Your task to perform on an android device: manage bookmarks in the chrome app Image 0: 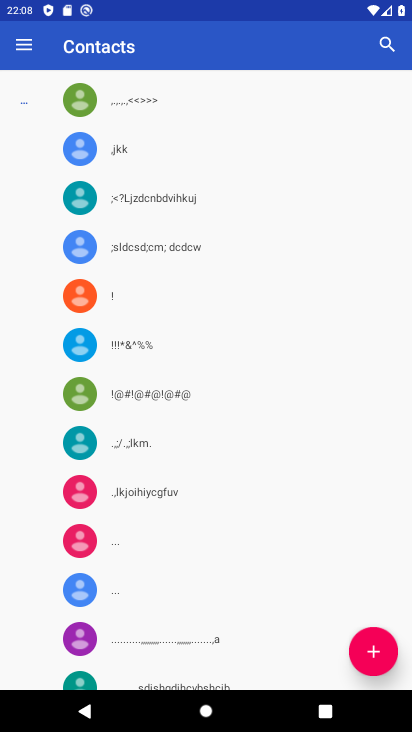
Step 0: press home button
Your task to perform on an android device: manage bookmarks in the chrome app Image 1: 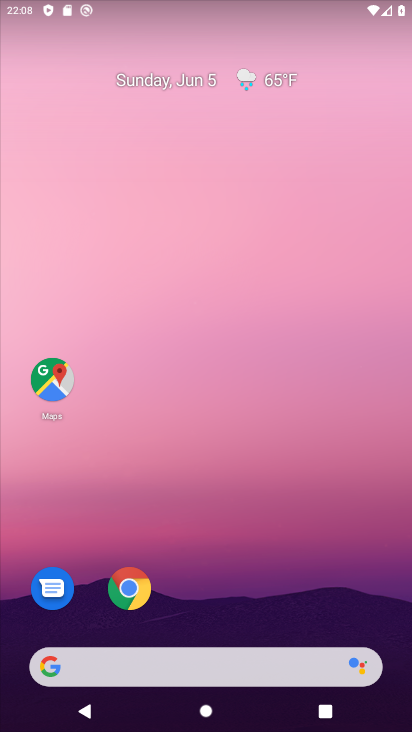
Step 1: click (131, 584)
Your task to perform on an android device: manage bookmarks in the chrome app Image 2: 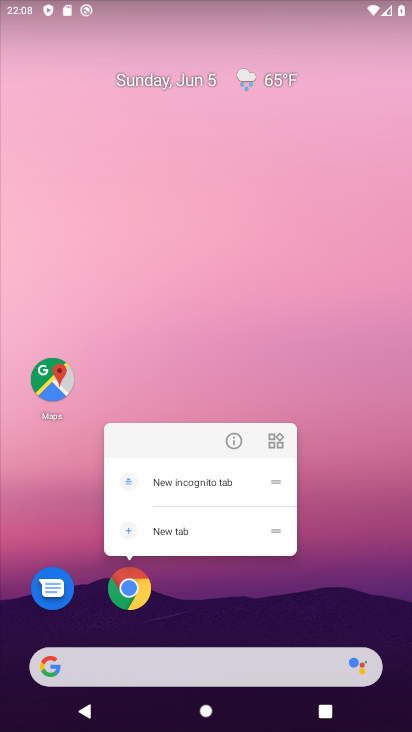
Step 2: click (131, 583)
Your task to perform on an android device: manage bookmarks in the chrome app Image 3: 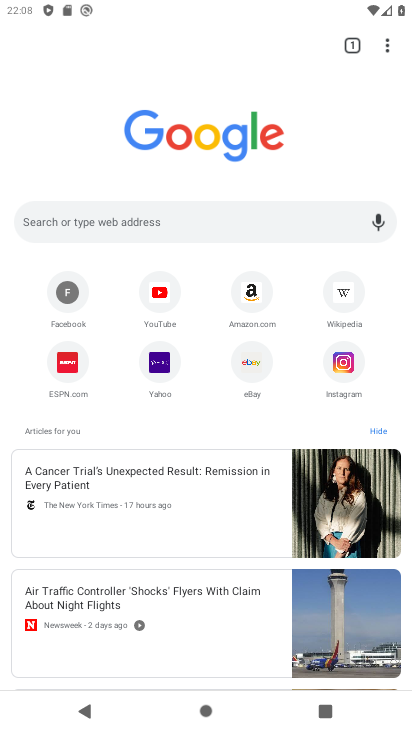
Step 3: drag from (398, 37) to (329, 180)
Your task to perform on an android device: manage bookmarks in the chrome app Image 4: 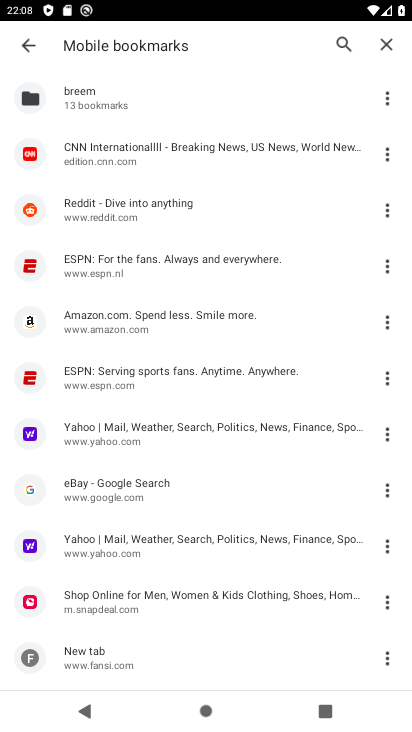
Step 4: click (198, 146)
Your task to perform on an android device: manage bookmarks in the chrome app Image 5: 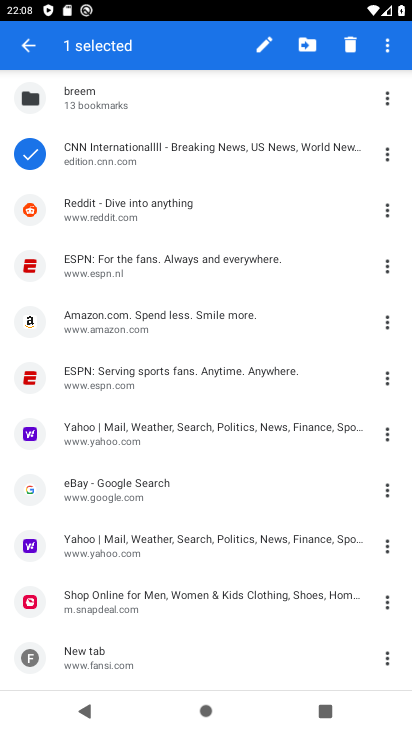
Step 5: click (184, 240)
Your task to perform on an android device: manage bookmarks in the chrome app Image 6: 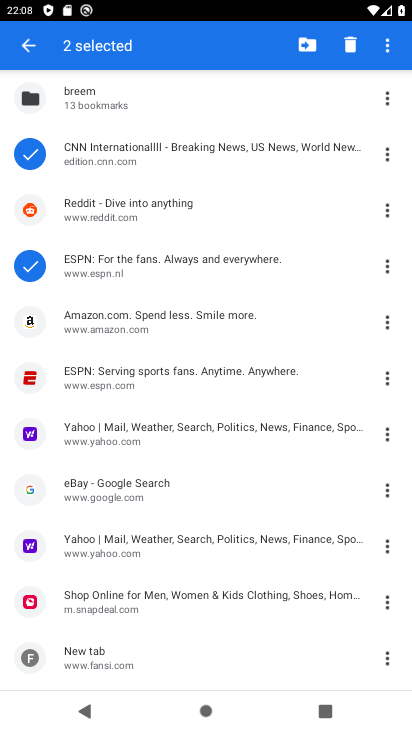
Step 6: click (184, 202)
Your task to perform on an android device: manage bookmarks in the chrome app Image 7: 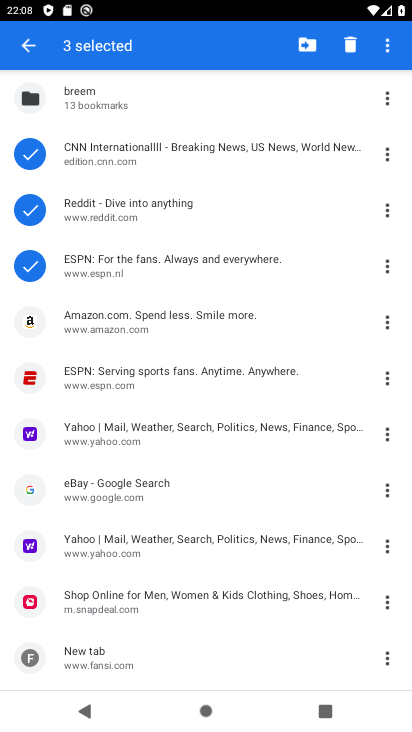
Step 7: click (193, 326)
Your task to perform on an android device: manage bookmarks in the chrome app Image 8: 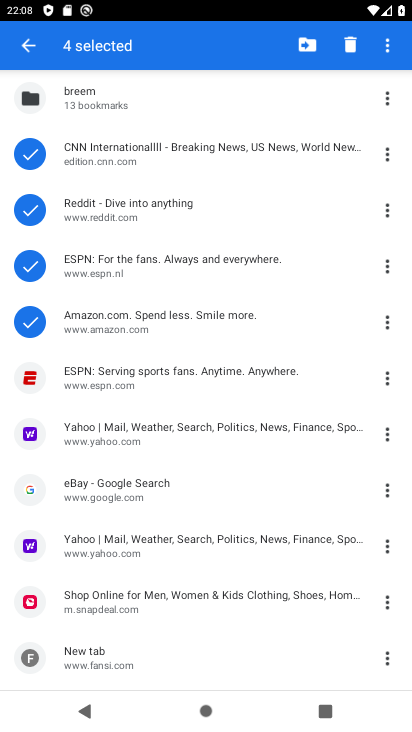
Step 8: click (192, 403)
Your task to perform on an android device: manage bookmarks in the chrome app Image 9: 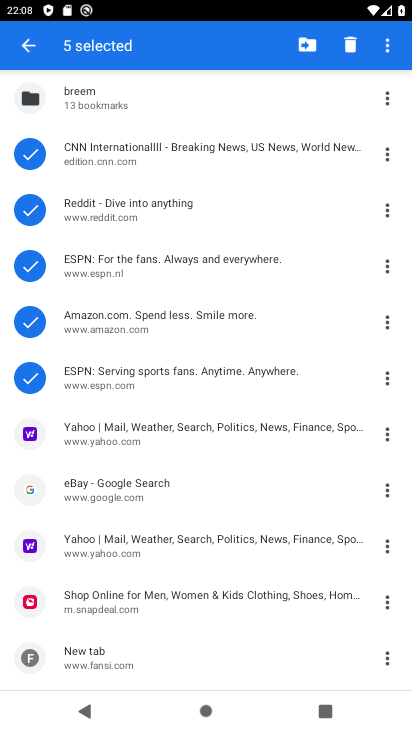
Step 9: click (182, 437)
Your task to perform on an android device: manage bookmarks in the chrome app Image 10: 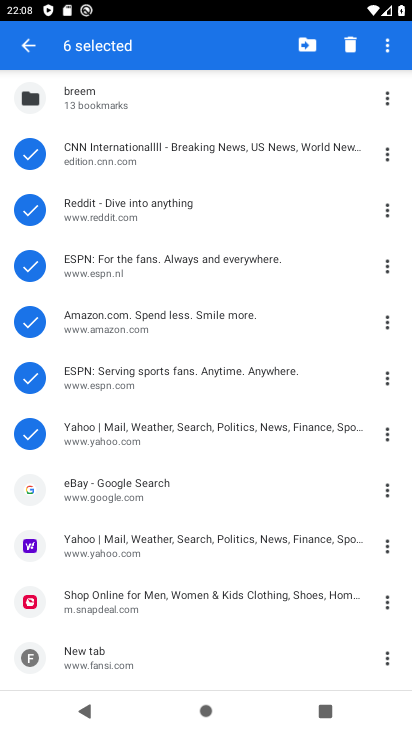
Step 10: click (154, 496)
Your task to perform on an android device: manage bookmarks in the chrome app Image 11: 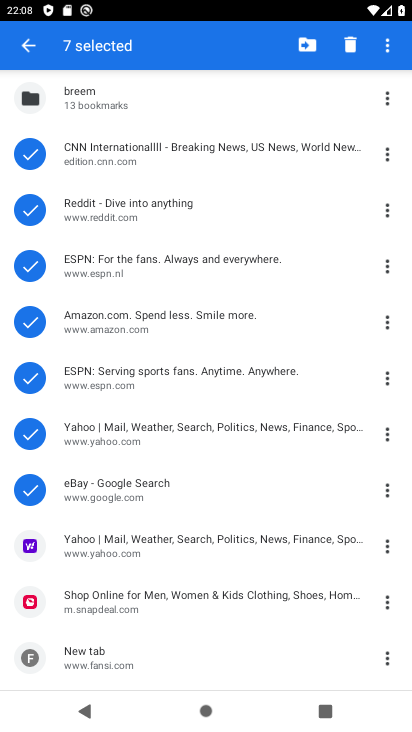
Step 11: click (146, 553)
Your task to perform on an android device: manage bookmarks in the chrome app Image 12: 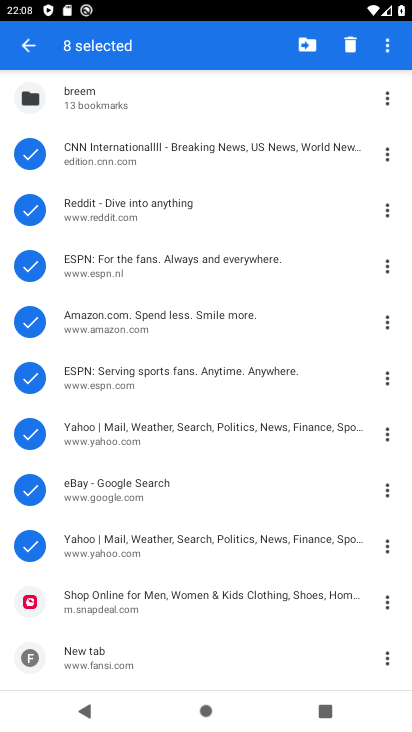
Step 12: click (145, 656)
Your task to perform on an android device: manage bookmarks in the chrome app Image 13: 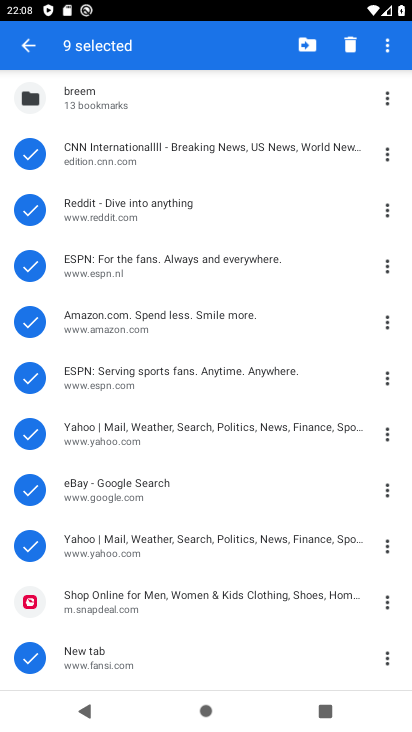
Step 13: click (159, 607)
Your task to perform on an android device: manage bookmarks in the chrome app Image 14: 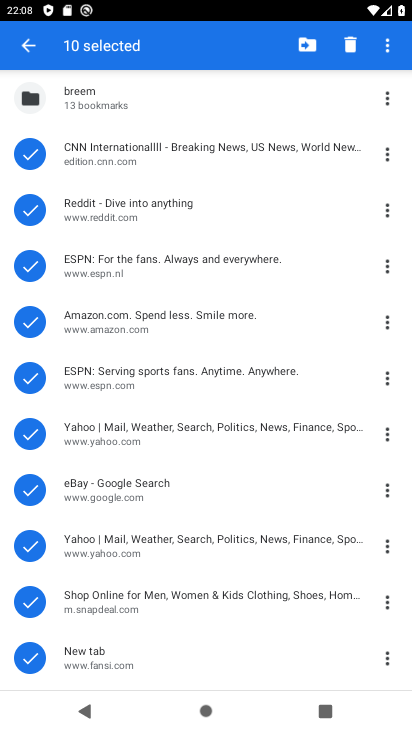
Step 14: drag from (153, 642) to (293, 23)
Your task to perform on an android device: manage bookmarks in the chrome app Image 15: 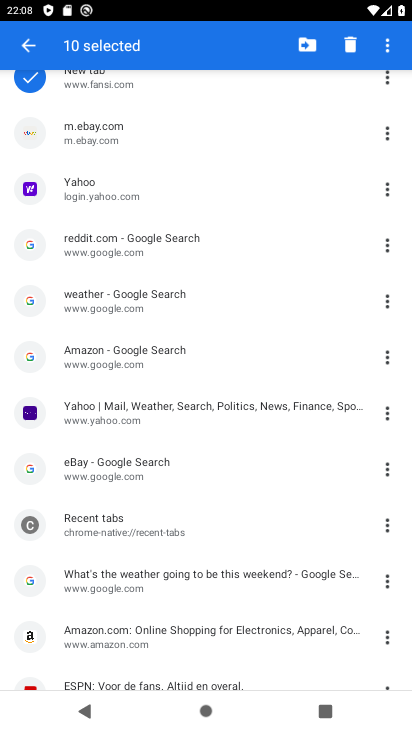
Step 15: click (200, 124)
Your task to perform on an android device: manage bookmarks in the chrome app Image 16: 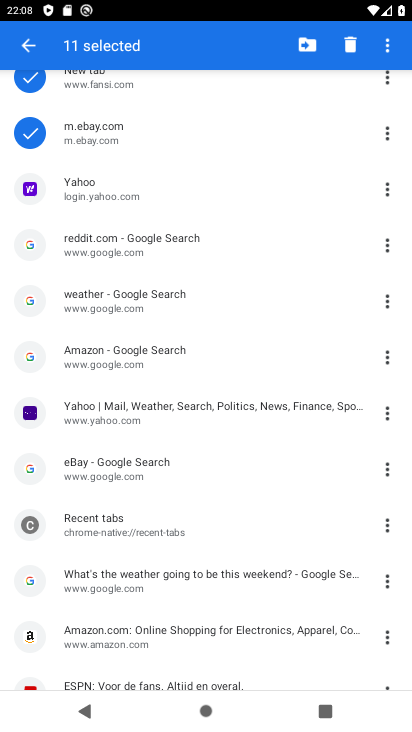
Step 16: click (155, 202)
Your task to perform on an android device: manage bookmarks in the chrome app Image 17: 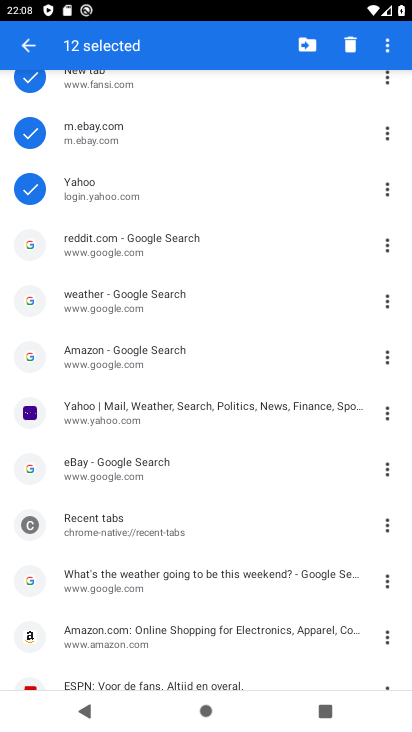
Step 17: click (149, 230)
Your task to perform on an android device: manage bookmarks in the chrome app Image 18: 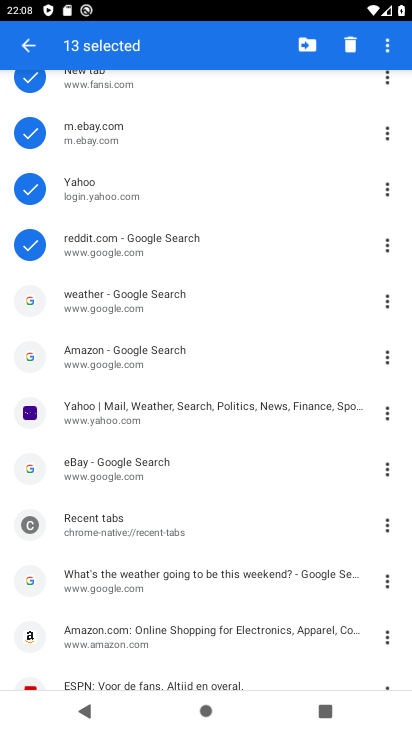
Step 18: click (142, 289)
Your task to perform on an android device: manage bookmarks in the chrome app Image 19: 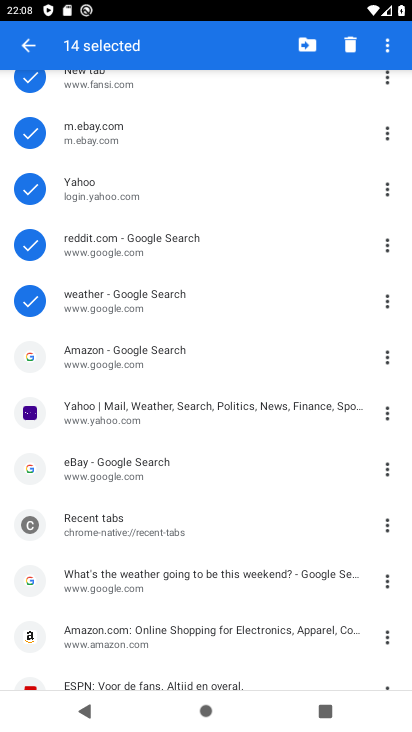
Step 19: drag from (131, 356) to (131, 410)
Your task to perform on an android device: manage bookmarks in the chrome app Image 20: 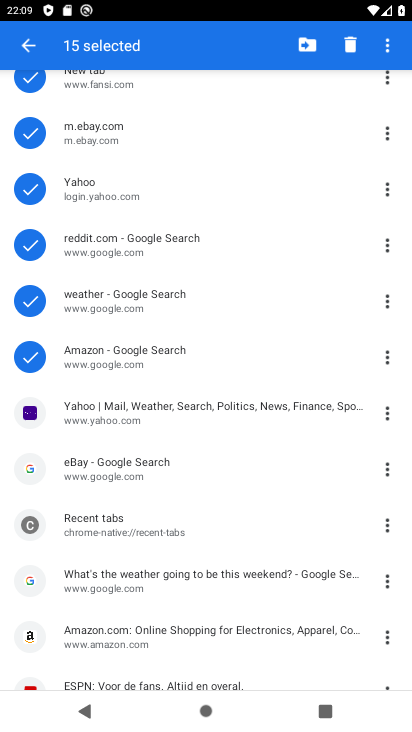
Step 20: click (134, 417)
Your task to perform on an android device: manage bookmarks in the chrome app Image 21: 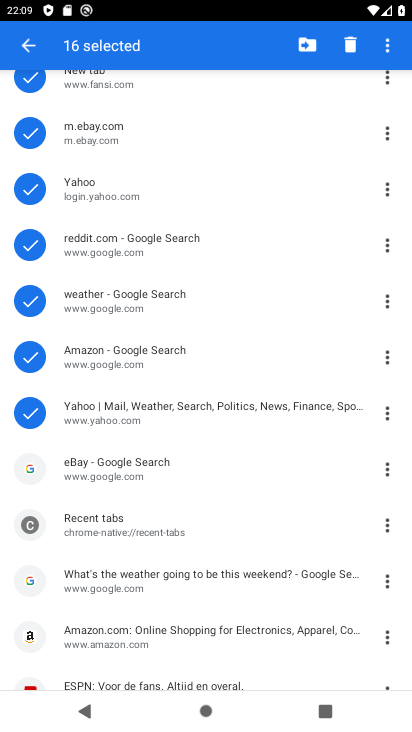
Step 21: click (111, 463)
Your task to perform on an android device: manage bookmarks in the chrome app Image 22: 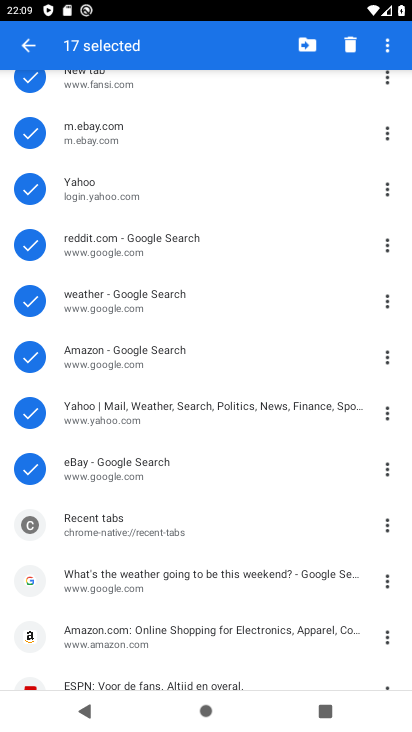
Step 22: click (113, 520)
Your task to perform on an android device: manage bookmarks in the chrome app Image 23: 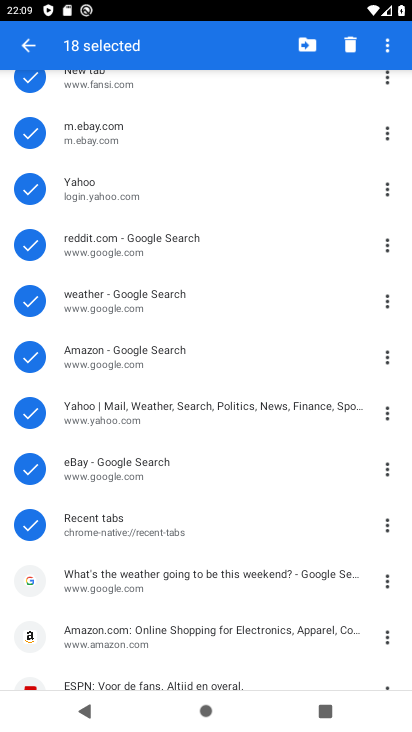
Step 23: click (111, 598)
Your task to perform on an android device: manage bookmarks in the chrome app Image 24: 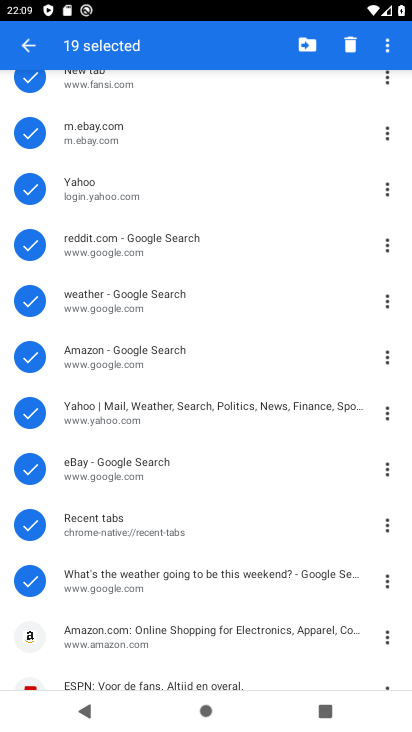
Step 24: click (127, 641)
Your task to perform on an android device: manage bookmarks in the chrome app Image 25: 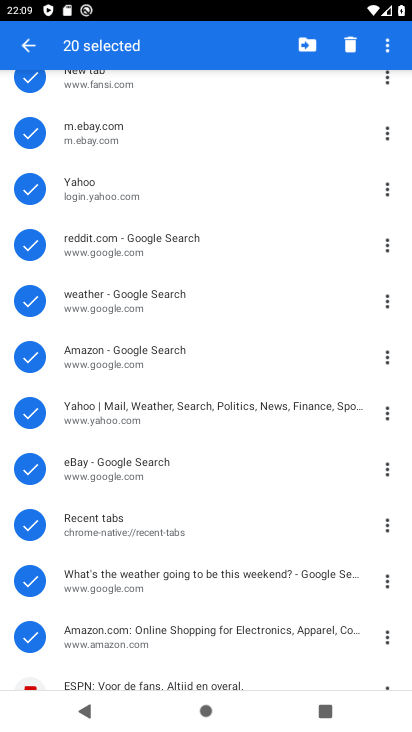
Step 25: drag from (134, 655) to (235, 272)
Your task to perform on an android device: manage bookmarks in the chrome app Image 26: 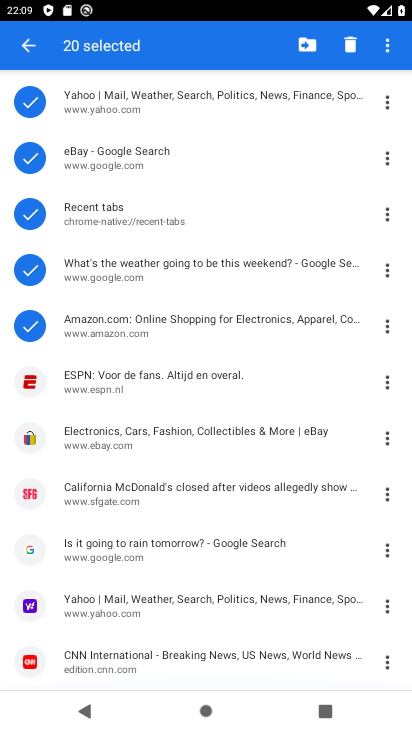
Step 26: click (212, 381)
Your task to perform on an android device: manage bookmarks in the chrome app Image 27: 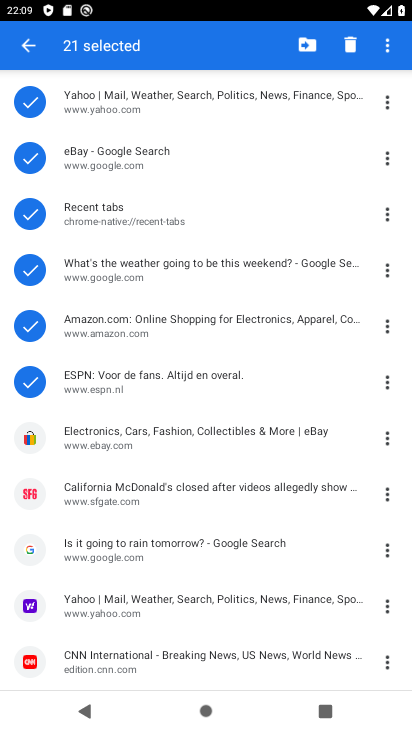
Step 27: click (180, 459)
Your task to perform on an android device: manage bookmarks in the chrome app Image 28: 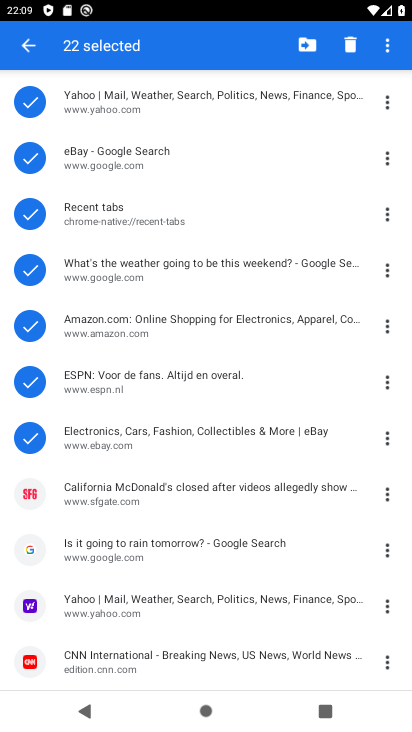
Step 28: click (171, 532)
Your task to perform on an android device: manage bookmarks in the chrome app Image 29: 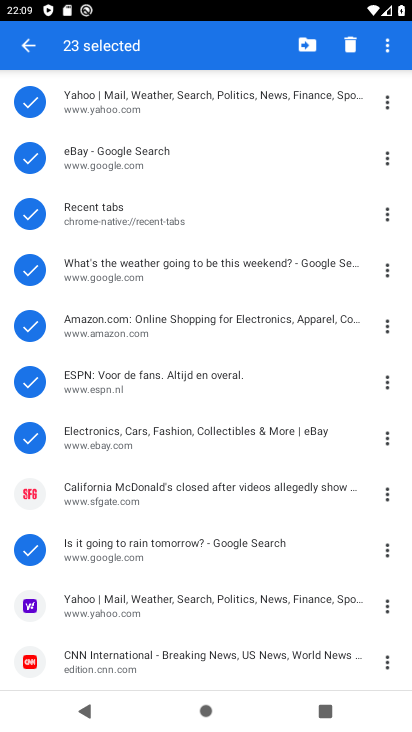
Step 29: click (167, 513)
Your task to perform on an android device: manage bookmarks in the chrome app Image 30: 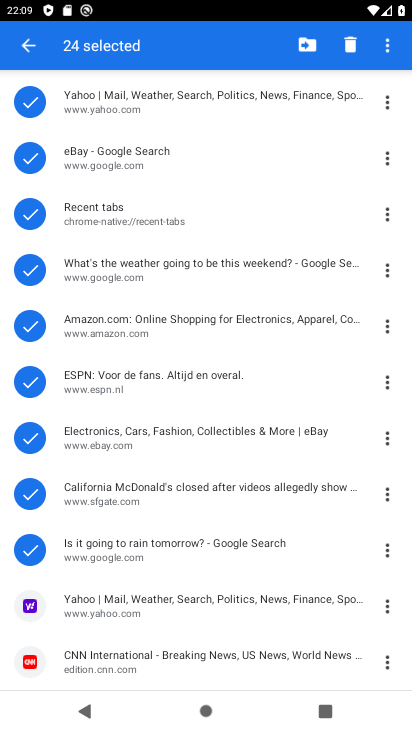
Step 30: click (164, 624)
Your task to perform on an android device: manage bookmarks in the chrome app Image 31: 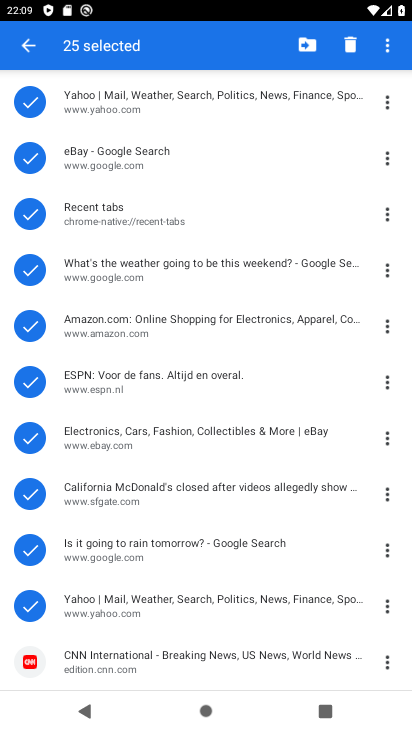
Step 31: click (144, 657)
Your task to perform on an android device: manage bookmarks in the chrome app Image 32: 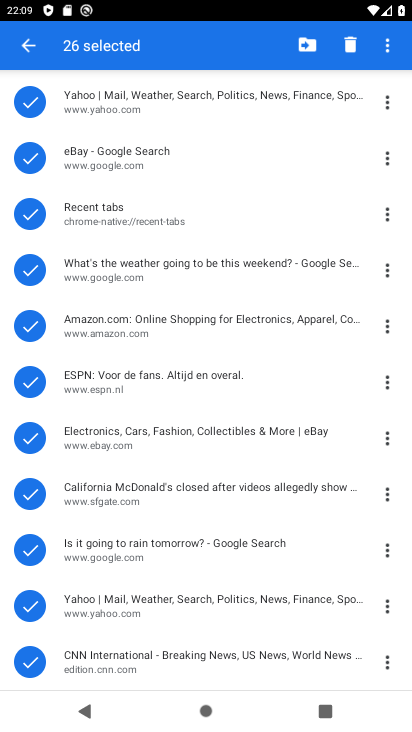
Step 32: drag from (150, 666) to (263, 132)
Your task to perform on an android device: manage bookmarks in the chrome app Image 33: 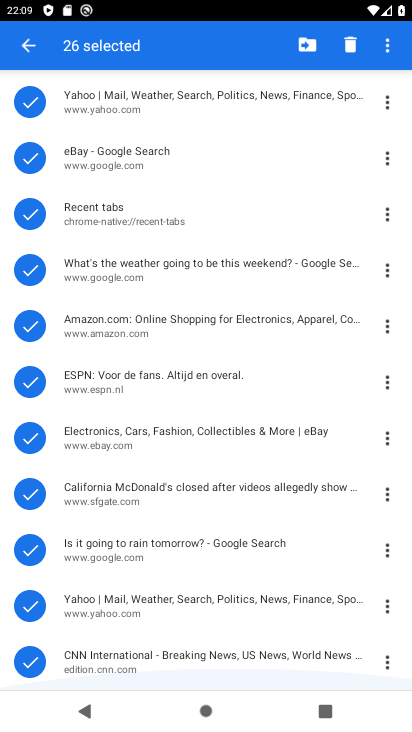
Step 33: click (301, 50)
Your task to perform on an android device: manage bookmarks in the chrome app Image 34: 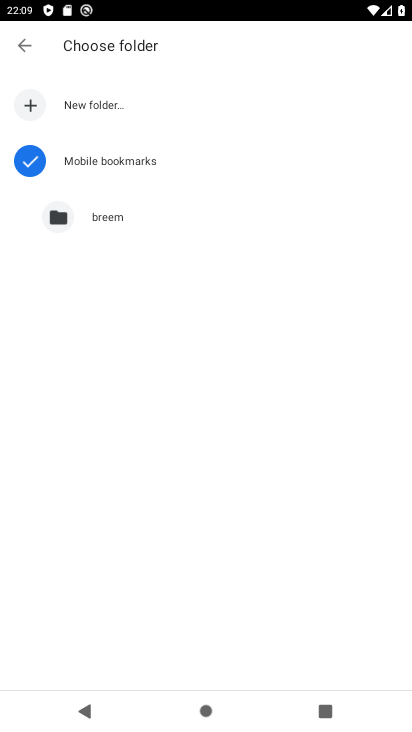
Step 34: click (146, 113)
Your task to perform on an android device: manage bookmarks in the chrome app Image 35: 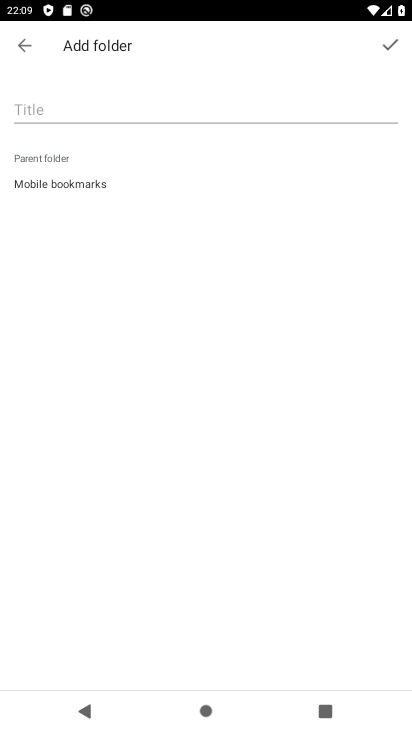
Step 35: click (80, 104)
Your task to perform on an android device: manage bookmarks in the chrome app Image 36: 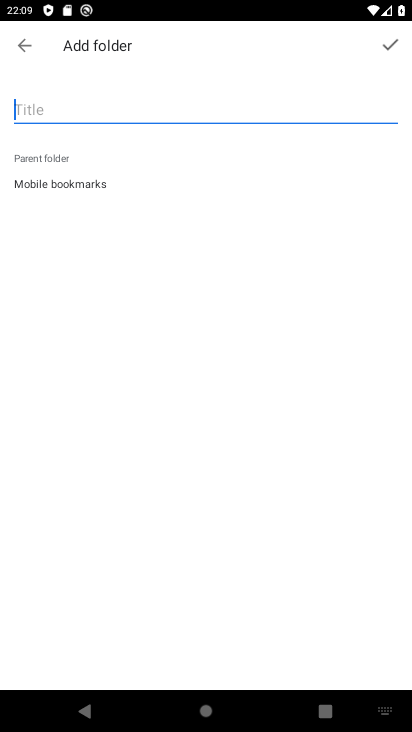
Step 36: type "xx"
Your task to perform on an android device: manage bookmarks in the chrome app Image 37: 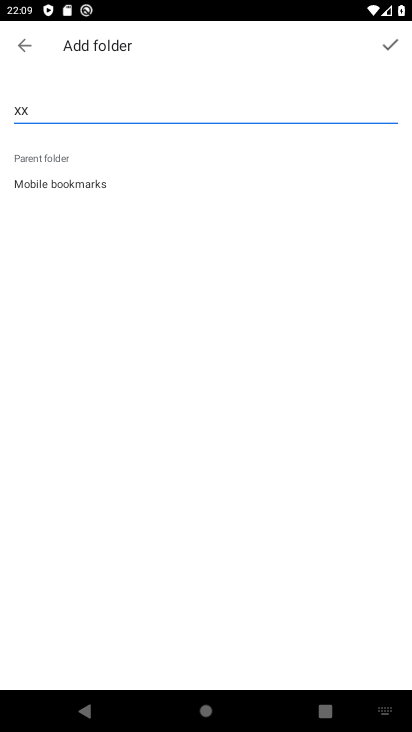
Step 37: click (397, 43)
Your task to perform on an android device: manage bookmarks in the chrome app Image 38: 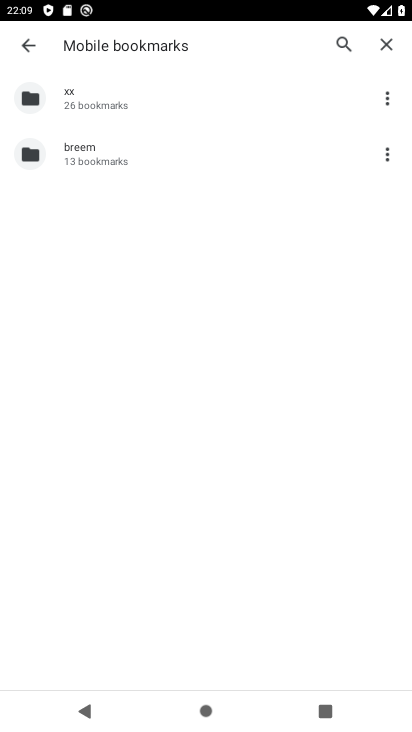
Step 38: task complete